Your task to perform on an android device: Go to Yahoo.com Image 0: 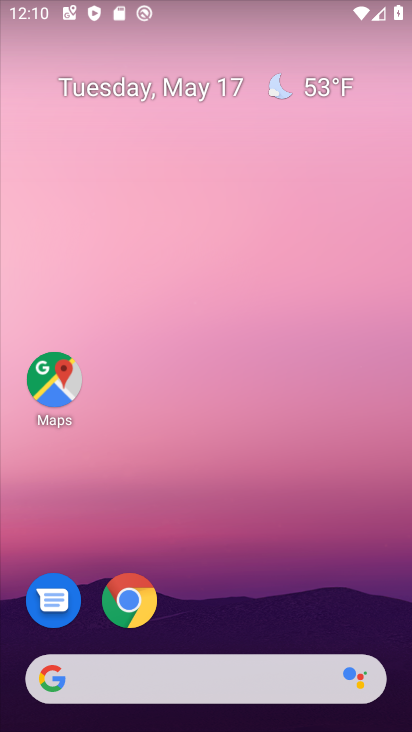
Step 0: click (140, 606)
Your task to perform on an android device: Go to Yahoo.com Image 1: 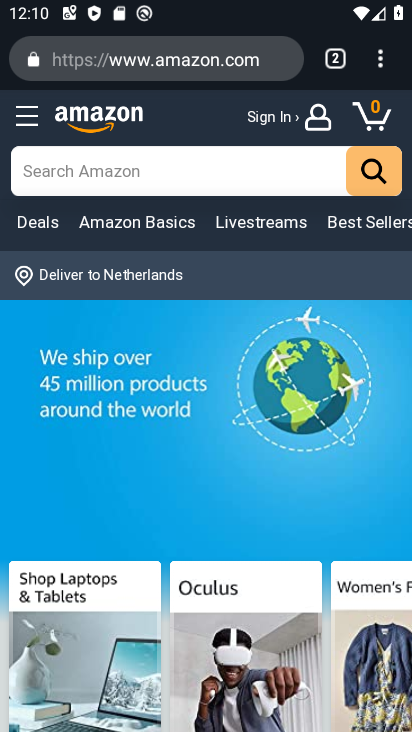
Step 1: click (199, 55)
Your task to perform on an android device: Go to Yahoo.com Image 2: 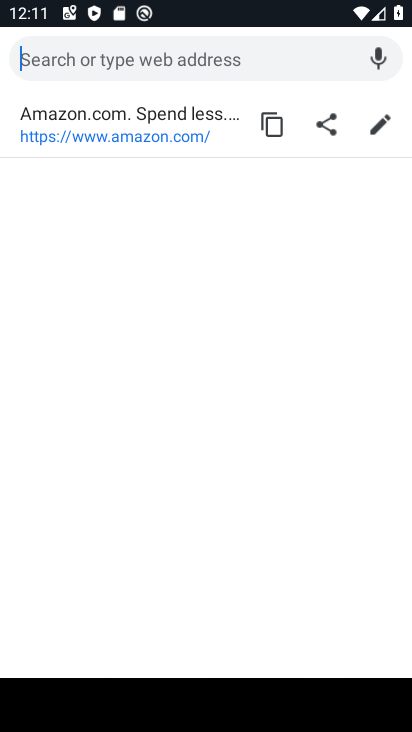
Step 2: type "yahoo.com"
Your task to perform on an android device: Go to Yahoo.com Image 3: 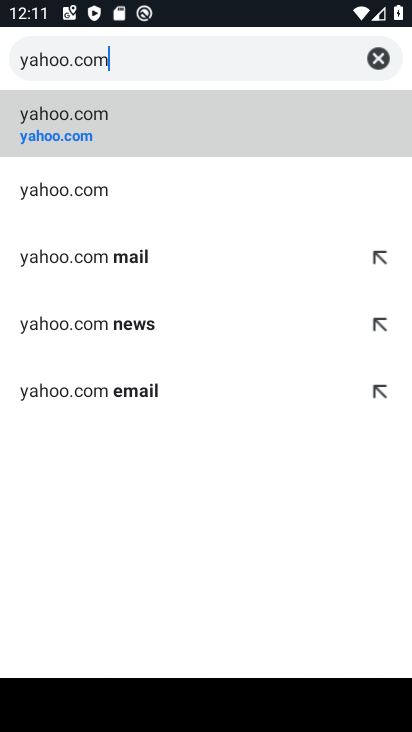
Step 3: click (76, 137)
Your task to perform on an android device: Go to Yahoo.com Image 4: 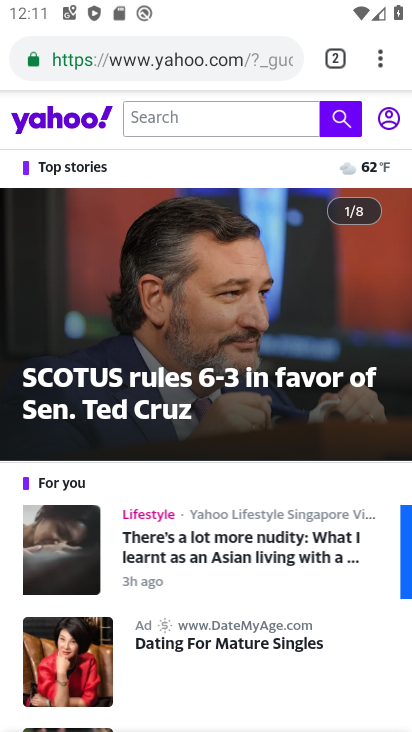
Step 4: task complete